Your task to perform on an android device: uninstall "Cash App" Image 0: 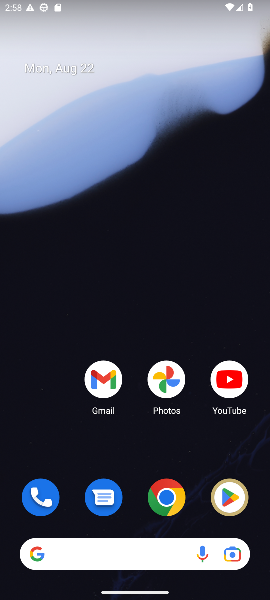
Step 0: click (231, 497)
Your task to perform on an android device: uninstall "Cash App" Image 1: 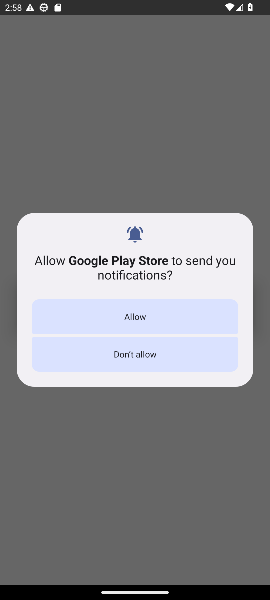
Step 1: click (142, 321)
Your task to perform on an android device: uninstall "Cash App" Image 2: 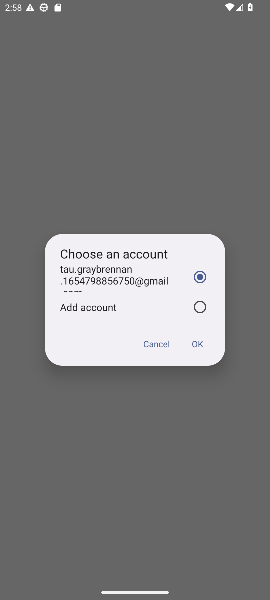
Step 2: click (188, 340)
Your task to perform on an android device: uninstall "Cash App" Image 3: 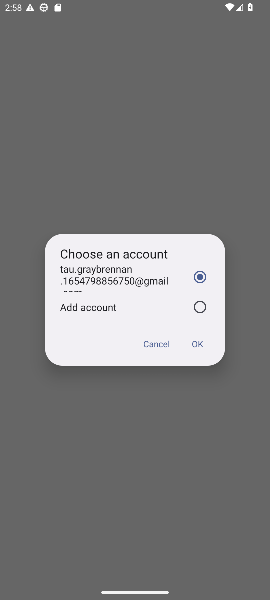
Step 3: click (195, 341)
Your task to perform on an android device: uninstall "Cash App" Image 4: 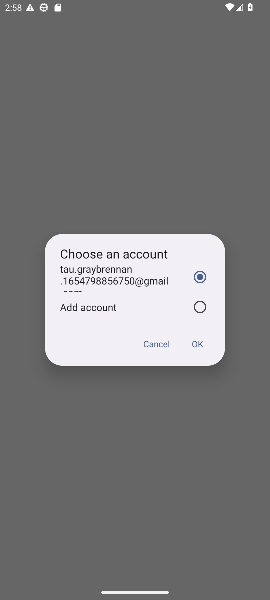
Step 4: click (155, 340)
Your task to perform on an android device: uninstall "Cash App" Image 5: 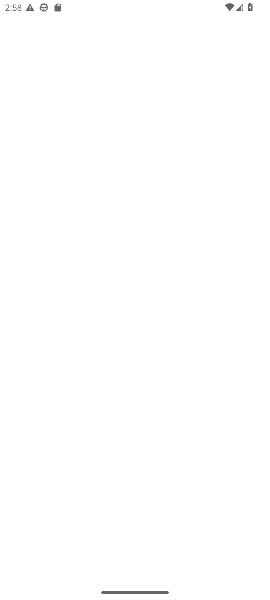
Step 5: drag from (128, 512) to (114, 25)
Your task to perform on an android device: uninstall "Cash App" Image 6: 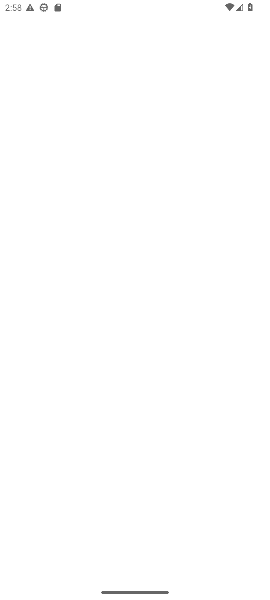
Step 6: drag from (140, 199) to (143, 423)
Your task to perform on an android device: uninstall "Cash App" Image 7: 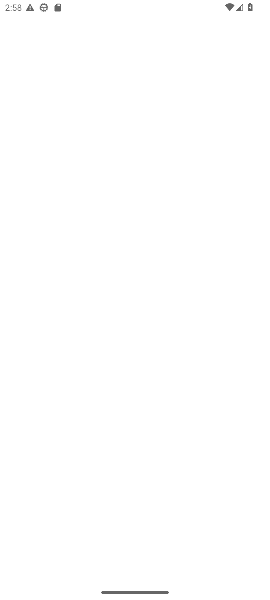
Step 7: drag from (146, 391) to (159, 59)
Your task to perform on an android device: uninstall "Cash App" Image 8: 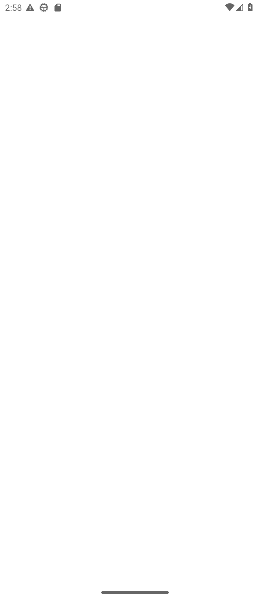
Step 8: drag from (103, 592) to (164, 585)
Your task to perform on an android device: uninstall "Cash App" Image 9: 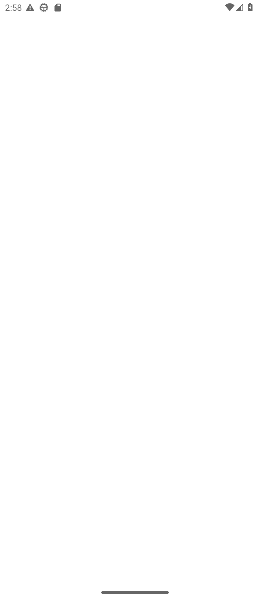
Step 9: drag from (166, 529) to (158, 91)
Your task to perform on an android device: uninstall "Cash App" Image 10: 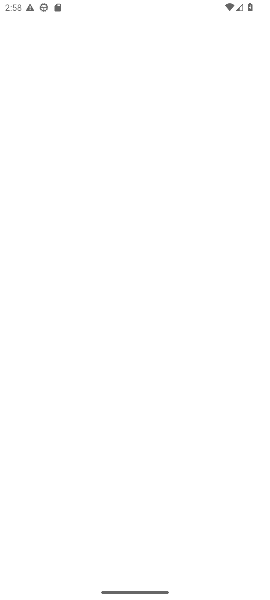
Step 10: press home button
Your task to perform on an android device: uninstall "Cash App" Image 11: 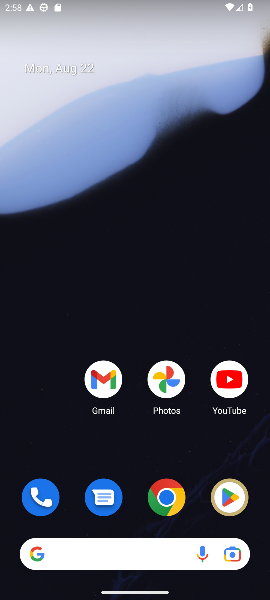
Step 11: click (224, 505)
Your task to perform on an android device: uninstall "Cash App" Image 12: 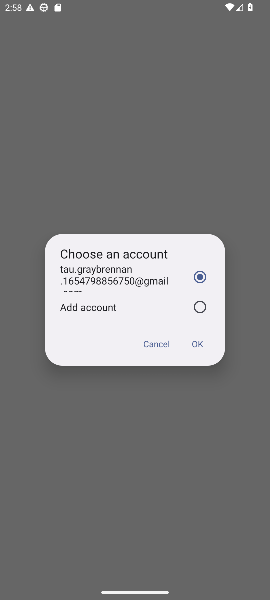
Step 12: drag from (105, 271) to (102, 334)
Your task to perform on an android device: uninstall "Cash App" Image 13: 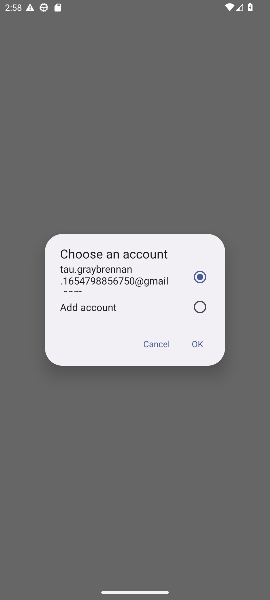
Step 13: drag from (111, 294) to (103, 226)
Your task to perform on an android device: uninstall "Cash App" Image 14: 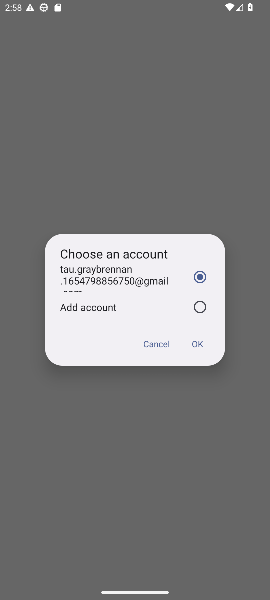
Step 14: drag from (126, 284) to (121, 251)
Your task to perform on an android device: uninstall "Cash App" Image 15: 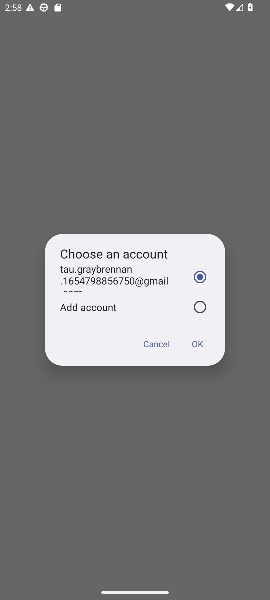
Step 15: drag from (121, 275) to (130, 234)
Your task to perform on an android device: uninstall "Cash App" Image 16: 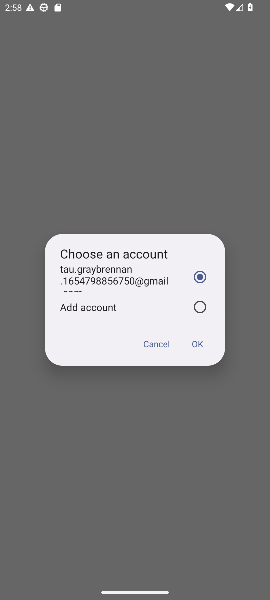
Step 16: drag from (99, 281) to (121, 246)
Your task to perform on an android device: uninstall "Cash App" Image 17: 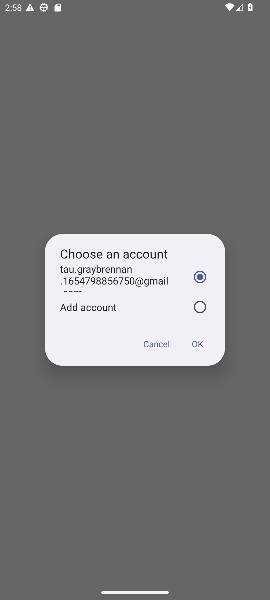
Step 17: click (196, 344)
Your task to perform on an android device: uninstall "Cash App" Image 18: 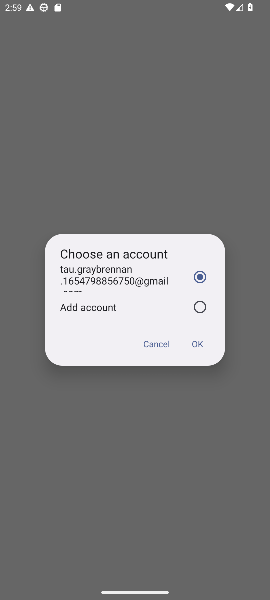
Step 18: click (193, 340)
Your task to perform on an android device: uninstall "Cash App" Image 19: 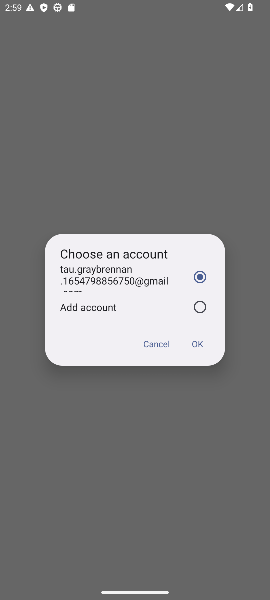
Step 19: task complete